Your task to perform on an android device: Open accessibility settings Image 0: 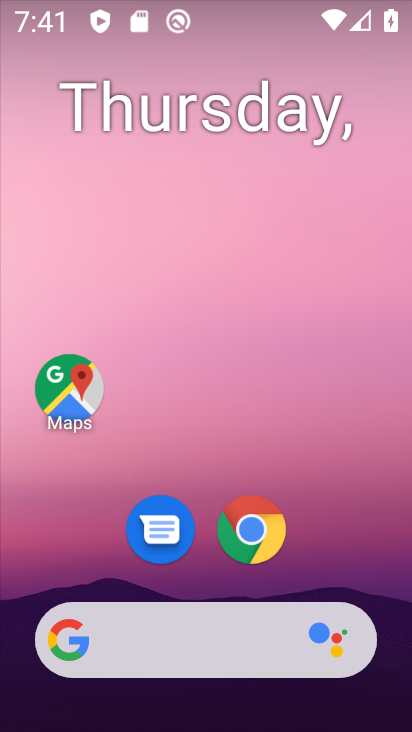
Step 0: drag from (252, 190) to (230, 42)
Your task to perform on an android device: Open accessibility settings Image 1: 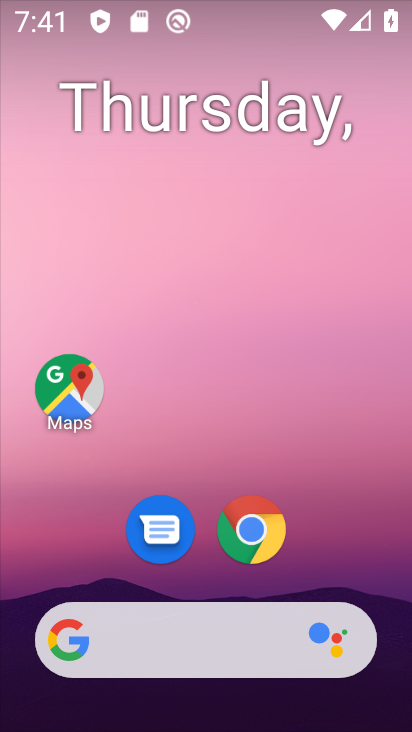
Step 1: drag from (223, 685) to (195, 50)
Your task to perform on an android device: Open accessibility settings Image 2: 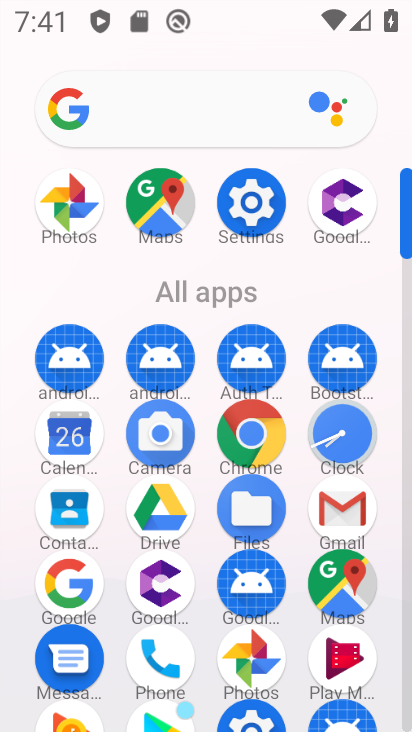
Step 2: drag from (166, 648) to (159, 63)
Your task to perform on an android device: Open accessibility settings Image 3: 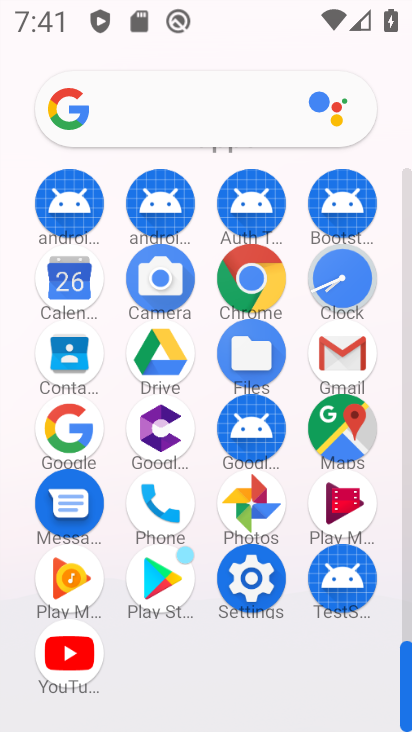
Step 3: drag from (254, 644) to (281, 122)
Your task to perform on an android device: Open accessibility settings Image 4: 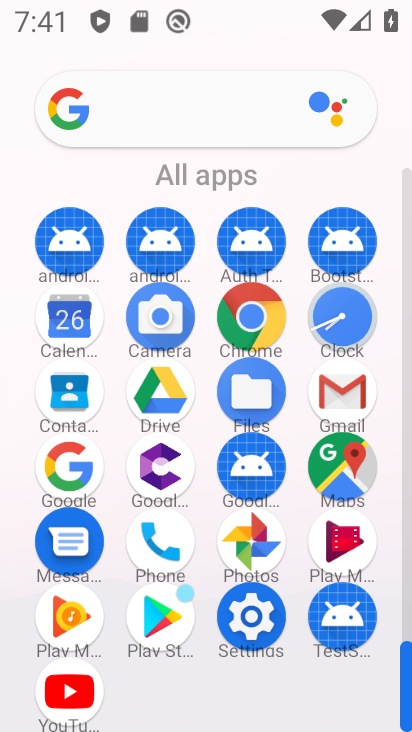
Step 4: click (260, 621)
Your task to perform on an android device: Open accessibility settings Image 5: 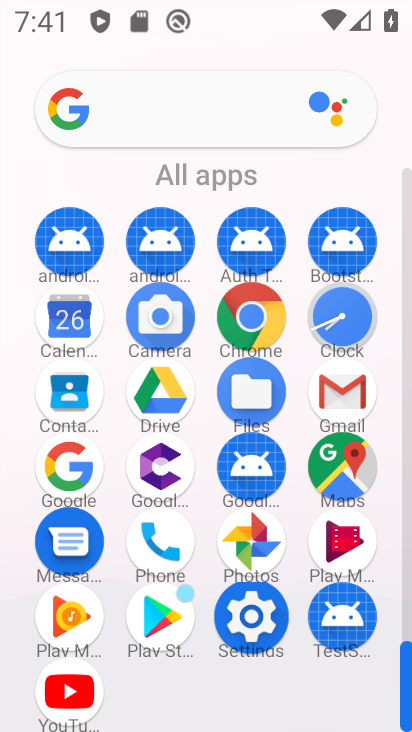
Step 5: click (264, 624)
Your task to perform on an android device: Open accessibility settings Image 6: 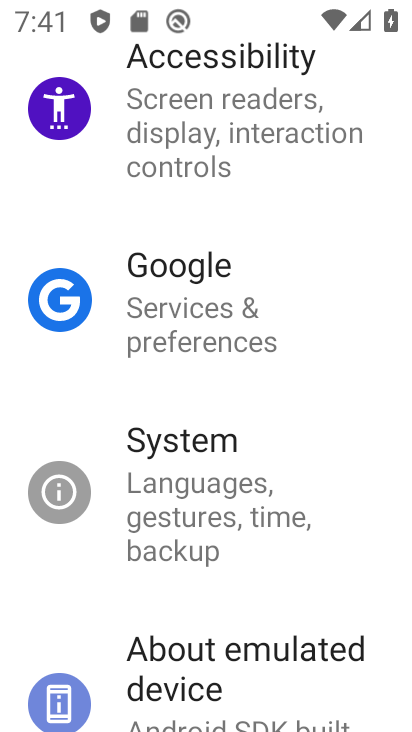
Step 6: click (265, 624)
Your task to perform on an android device: Open accessibility settings Image 7: 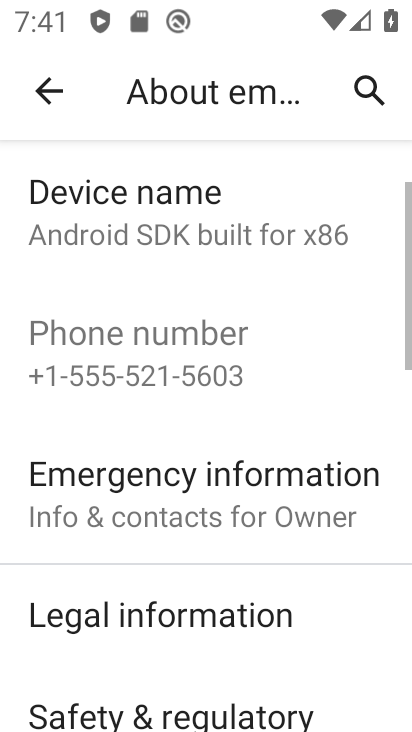
Step 7: click (41, 86)
Your task to perform on an android device: Open accessibility settings Image 8: 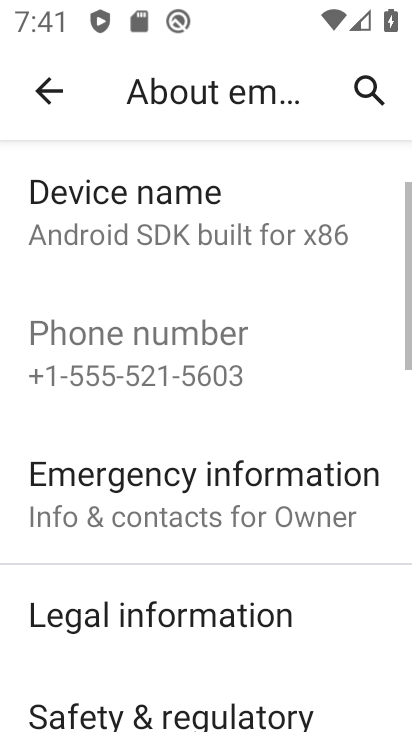
Step 8: click (50, 85)
Your task to perform on an android device: Open accessibility settings Image 9: 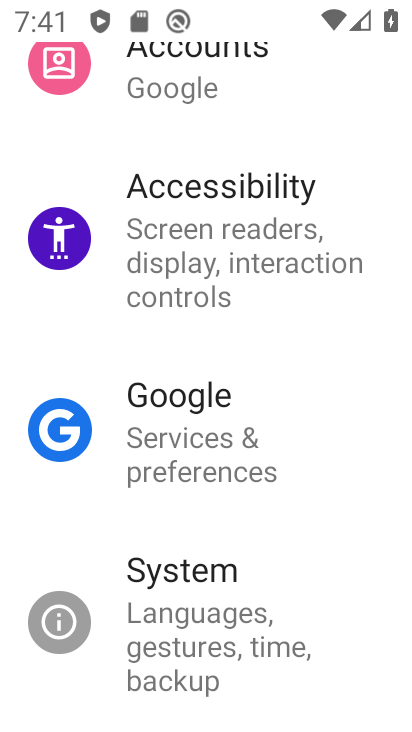
Step 9: click (192, 224)
Your task to perform on an android device: Open accessibility settings Image 10: 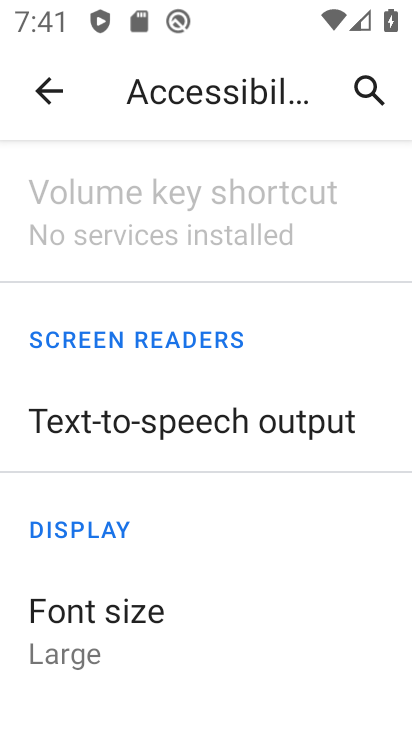
Step 10: task complete